Your task to perform on an android device: Go to notification settings Image 0: 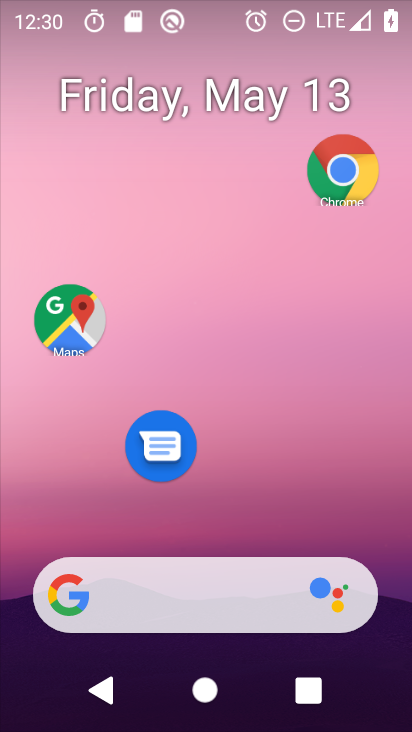
Step 0: drag from (251, 575) to (271, 12)
Your task to perform on an android device: Go to notification settings Image 1: 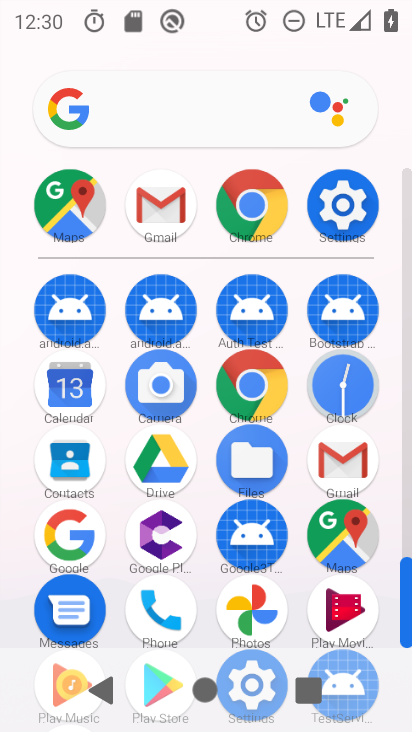
Step 1: click (351, 201)
Your task to perform on an android device: Go to notification settings Image 2: 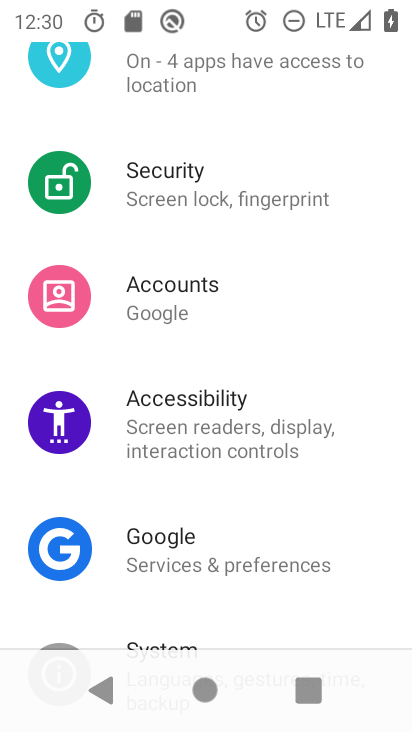
Step 2: drag from (281, 237) to (314, 697)
Your task to perform on an android device: Go to notification settings Image 3: 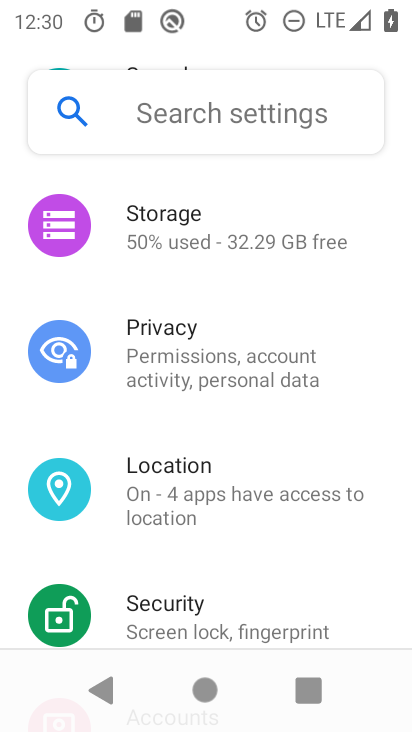
Step 3: drag from (250, 323) to (307, 643)
Your task to perform on an android device: Go to notification settings Image 4: 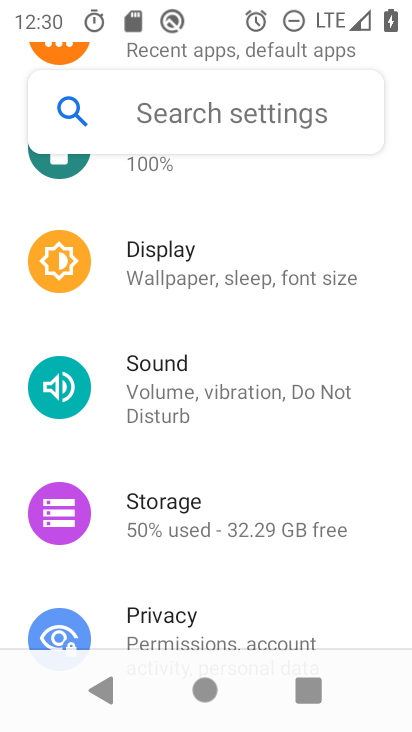
Step 4: drag from (237, 321) to (304, 611)
Your task to perform on an android device: Go to notification settings Image 5: 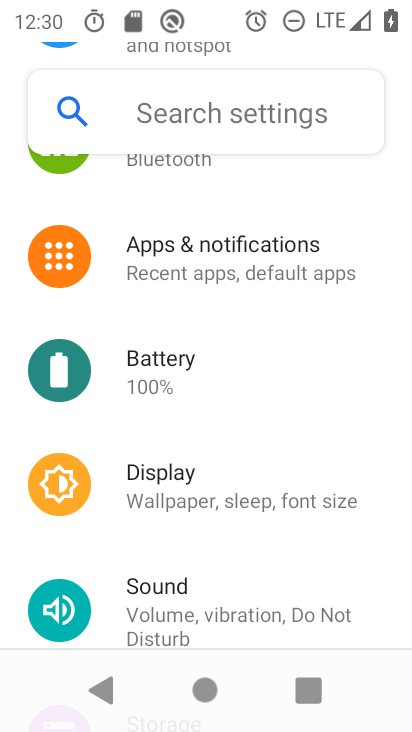
Step 5: click (223, 253)
Your task to perform on an android device: Go to notification settings Image 6: 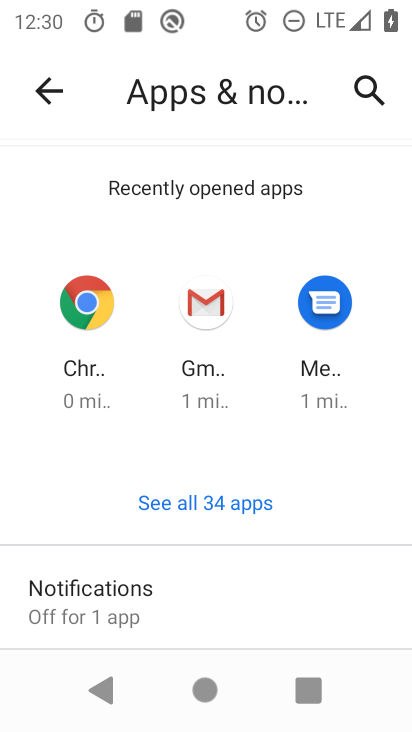
Step 6: task complete